Your task to perform on an android device: Open display settings Image 0: 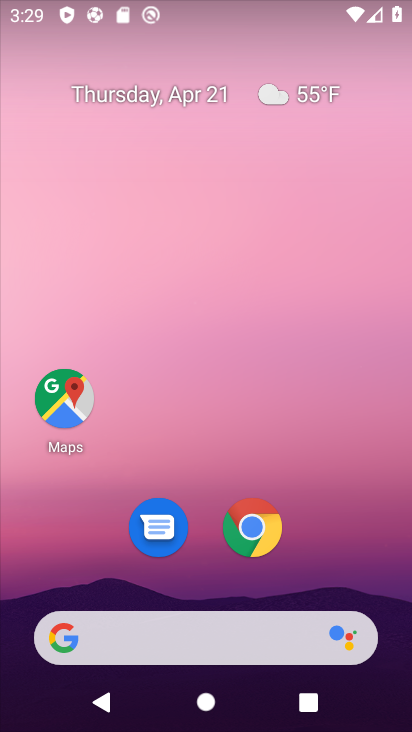
Step 0: drag from (387, 585) to (239, 106)
Your task to perform on an android device: Open display settings Image 1: 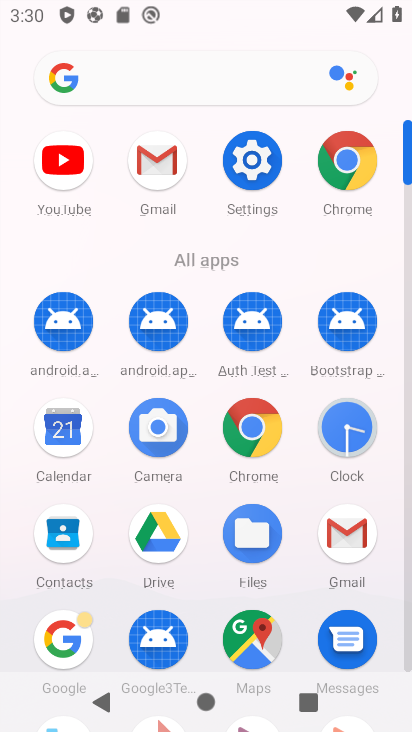
Step 1: click (256, 175)
Your task to perform on an android device: Open display settings Image 2: 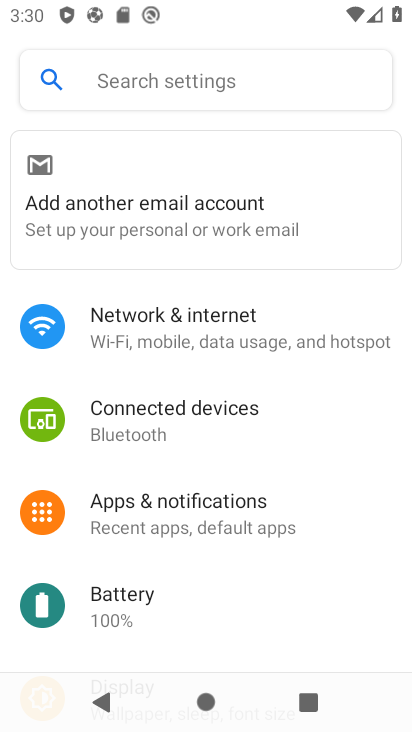
Step 2: drag from (301, 572) to (267, 150)
Your task to perform on an android device: Open display settings Image 3: 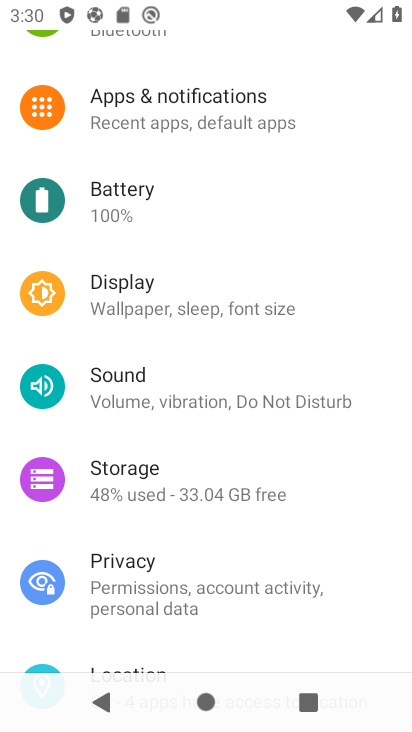
Step 3: click (274, 305)
Your task to perform on an android device: Open display settings Image 4: 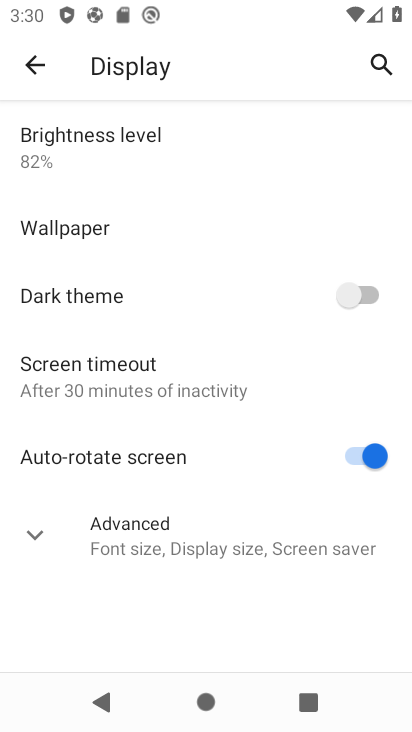
Step 4: task complete